Your task to perform on an android device: Go to CNN.com Image 0: 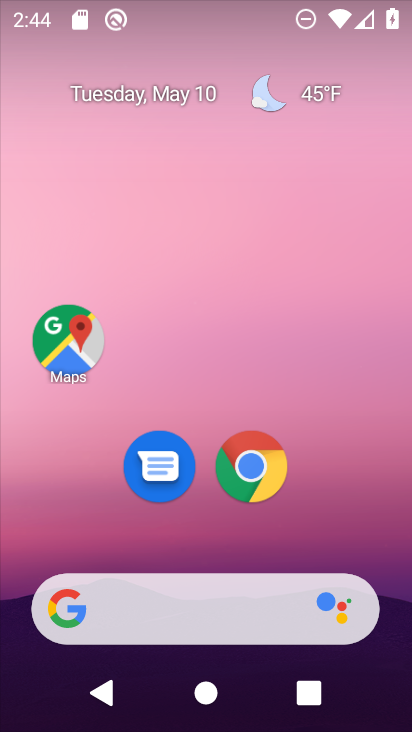
Step 0: click (259, 468)
Your task to perform on an android device: Go to CNN.com Image 1: 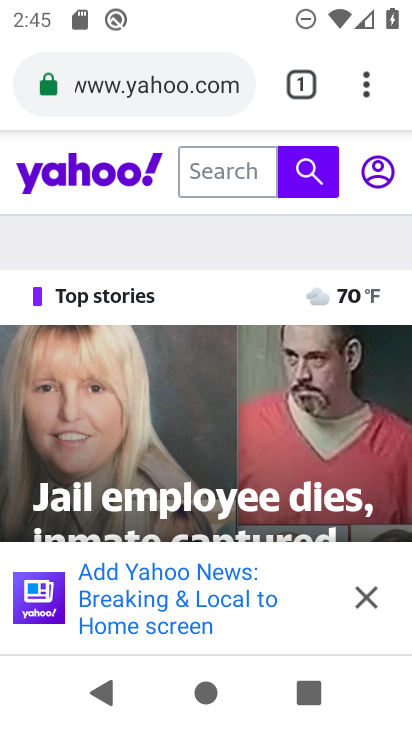
Step 1: click (209, 99)
Your task to perform on an android device: Go to CNN.com Image 2: 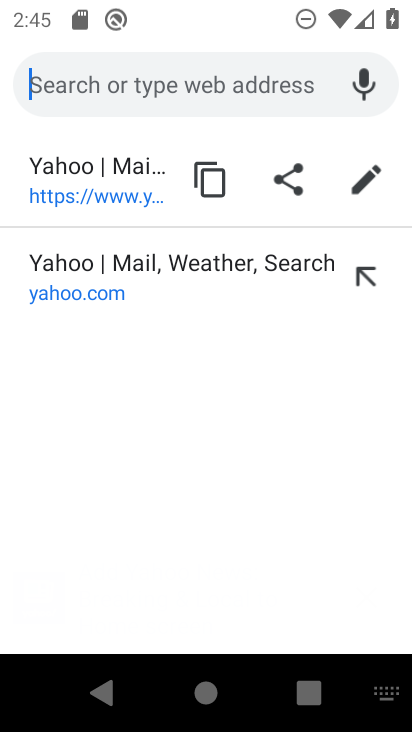
Step 2: type "cnn.com"
Your task to perform on an android device: Go to CNN.com Image 3: 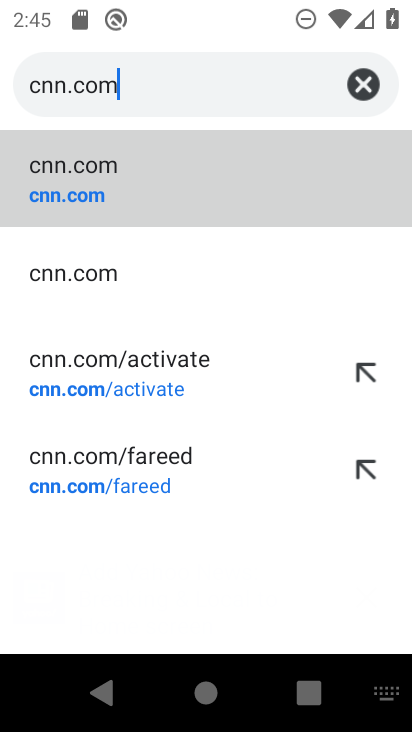
Step 3: click (69, 172)
Your task to perform on an android device: Go to CNN.com Image 4: 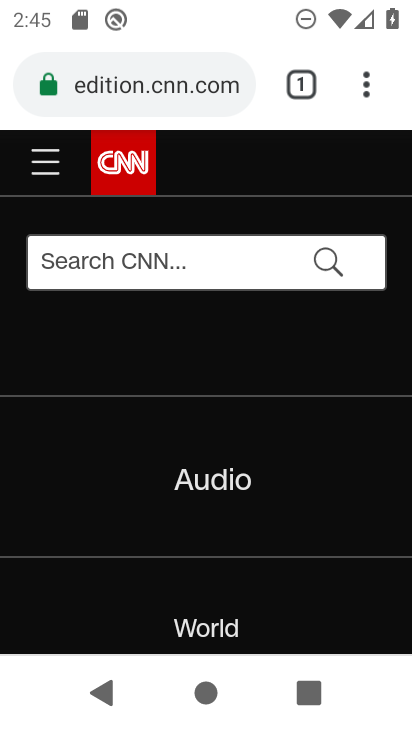
Step 4: task complete